Your task to perform on an android device: Find coffee shops on Maps Image 0: 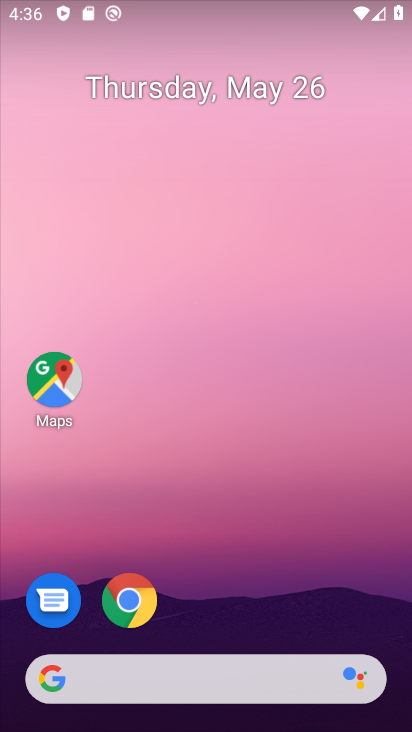
Step 0: click (66, 384)
Your task to perform on an android device: Find coffee shops on Maps Image 1: 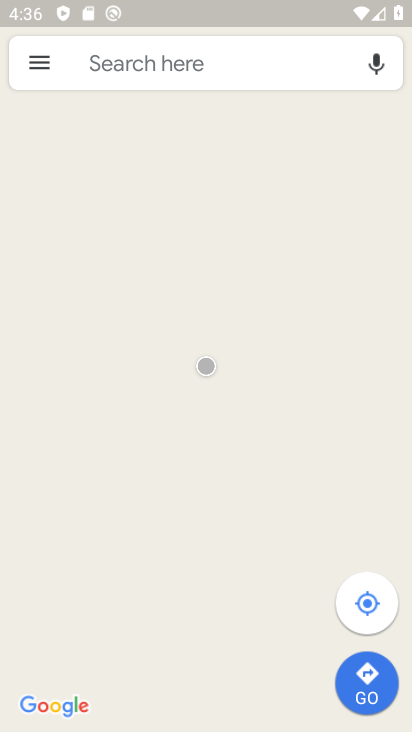
Step 1: click (148, 53)
Your task to perform on an android device: Find coffee shops on Maps Image 2: 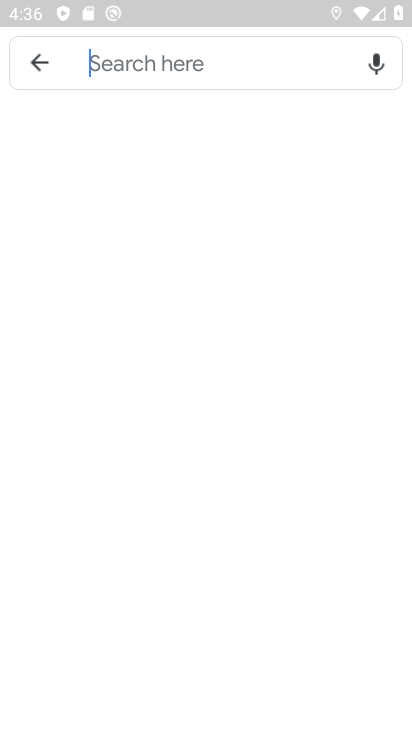
Step 2: type "coffee shops"
Your task to perform on an android device: Find coffee shops on Maps Image 3: 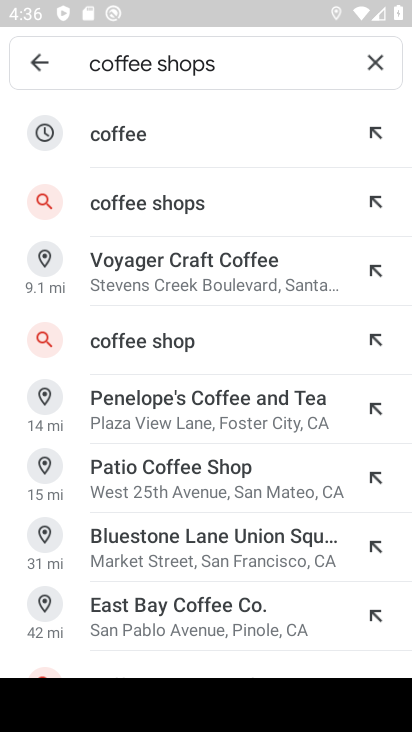
Step 3: click (162, 203)
Your task to perform on an android device: Find coffee shops on Maps Image 4: 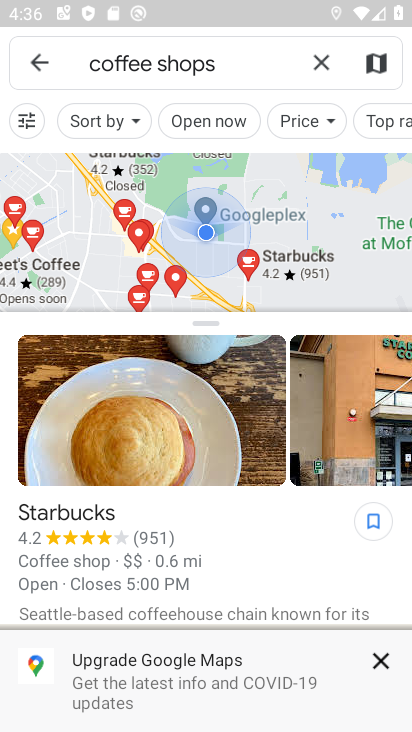
Step 4: click (383, 658)
Your task to perform on an android device: Find coffee shops on Maps Image 5: 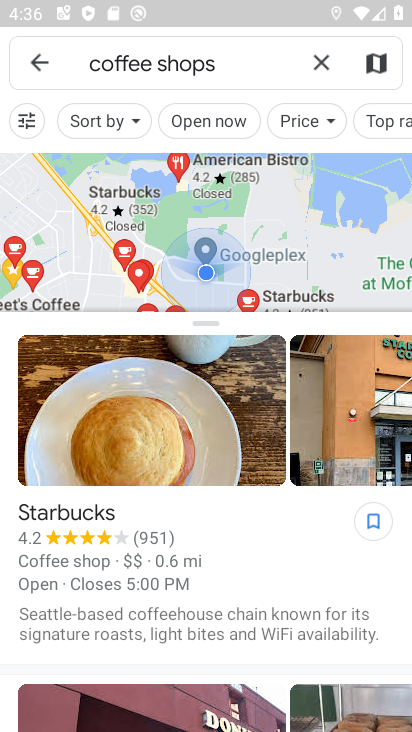
Step 5: task complete